Your task to perform on an android device: Go to Amazon Image 0: 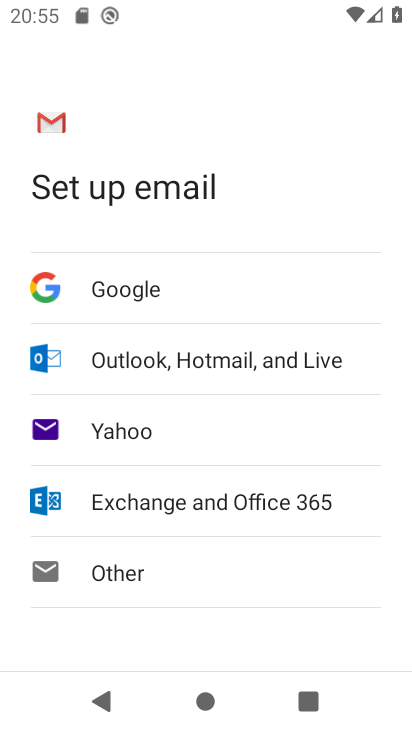
Step 0: press home button
Your task to perform on an android device: Go to Amazon Image 1: 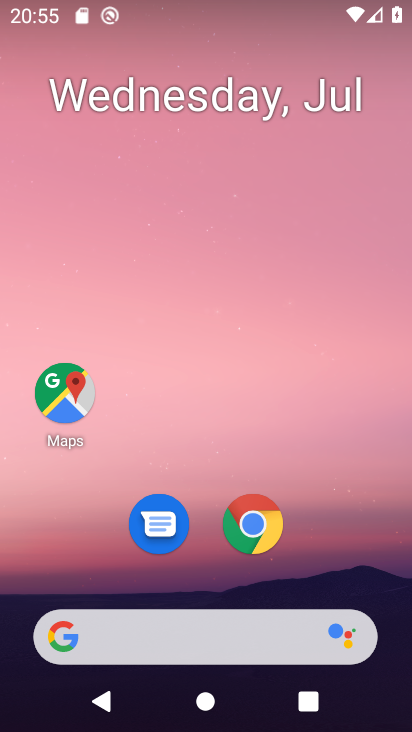
Step 1: drag from (172, 633) to (294, 169)
Your task to perform on an android device: Go to Amazon Image 2: 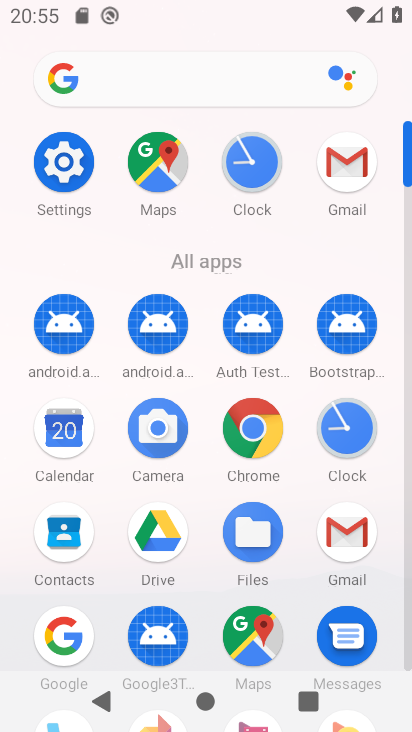
Step 2: click (251, 422)
Your task to perform on an android device: Go to Amazon Image 3: 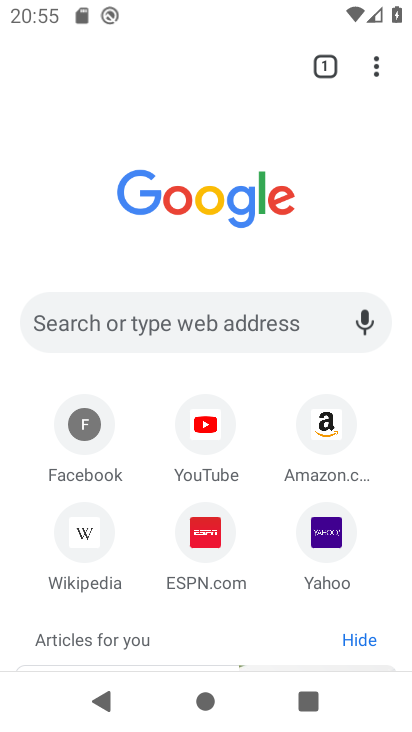
Step 3: click (325, 420)
Your task to perform on an android device: Go to Amazon Image 4: 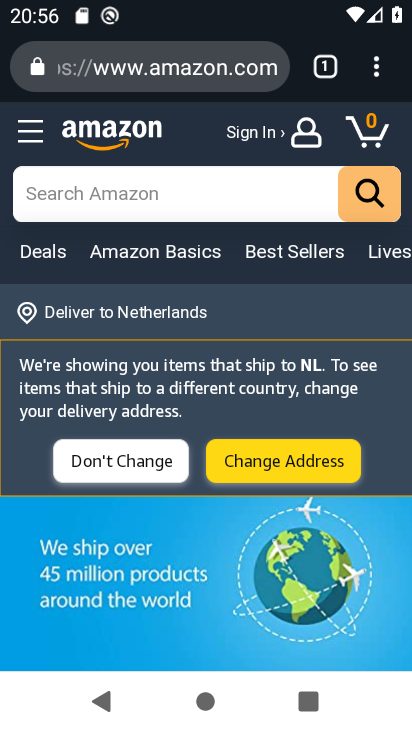
Step 4: task complete